Your task to perform on an android device: turn off data saver in the chrome app Image 0: 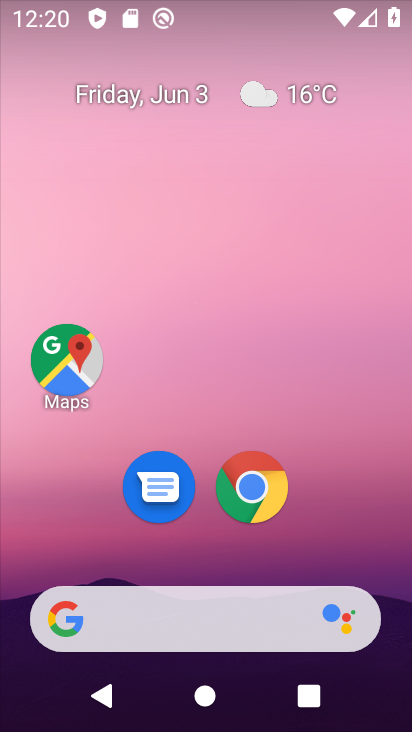
Step 0: click (221, 505)
Your task to perform on an android device: turn off data saver in the chrome app Image 1: 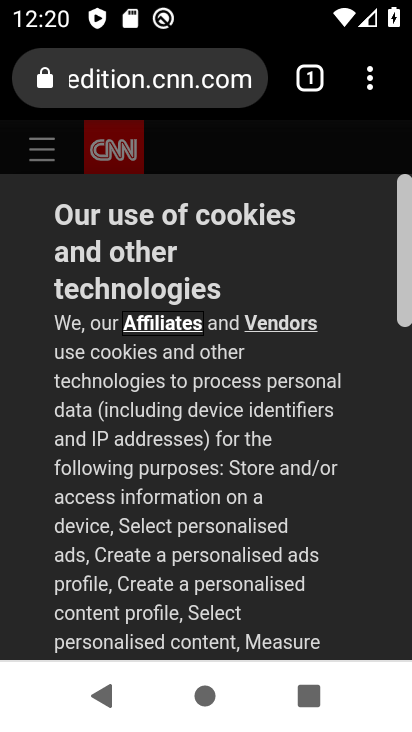
Step 1: click (350, 84)
Your task to perform on an android device: turn off data saver in the chrome app Image 2: 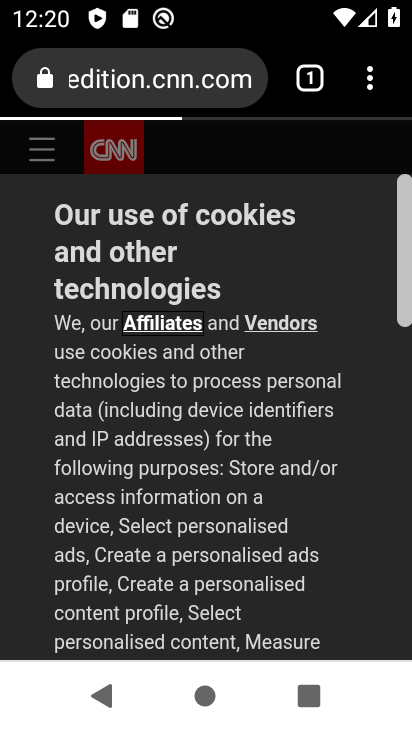
Step 2: drag from (350, 84) to (147, 540)
Your task to perform on an android device: turn off data saver in the chrome app Image 3: 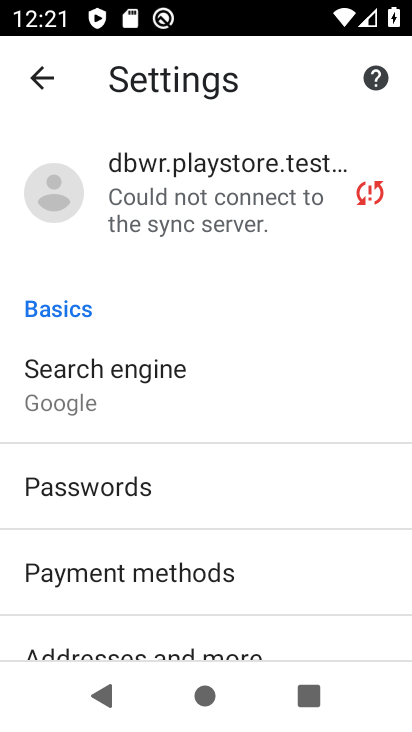
Step 3: drag from (165, 574) to (0, 138)
Your task to perform on an android device: turn off data saver in the chrome app Image 4: 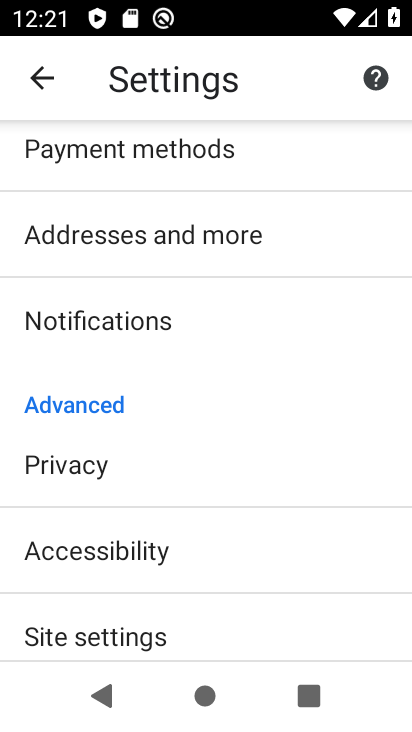
Step 4: drag from (122, 528) to (26, 3)
Your task to perform on an android device: turn off data saver in the chrome app Image 5: 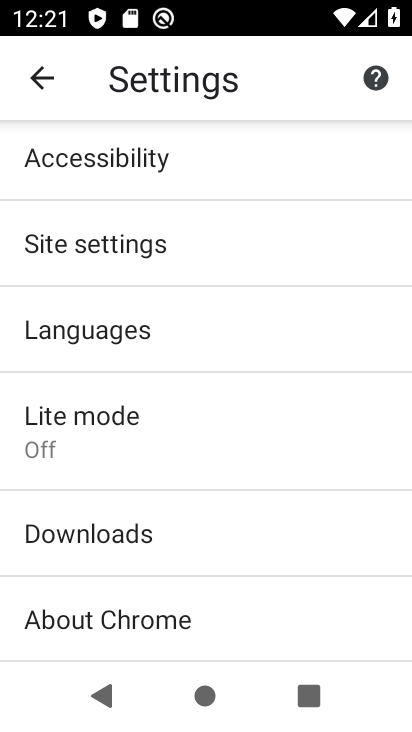
Step 5: click (139, 439)
Your task to perform on an android device: turn off data saver in the chrome app Image 6: 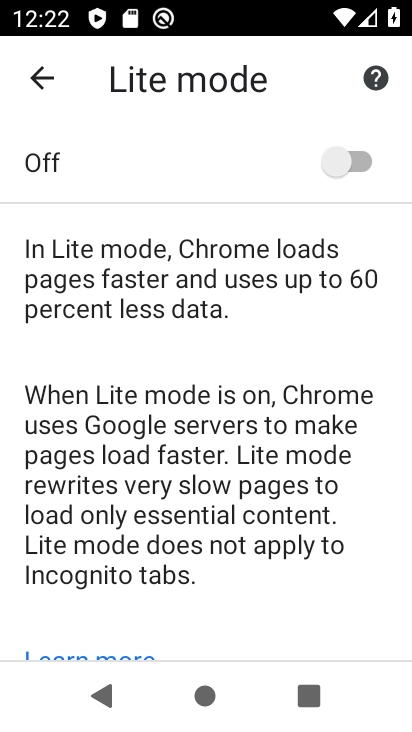
Step 6: task complete